Your task to perform on an android device: What is the recent news? Image 0: 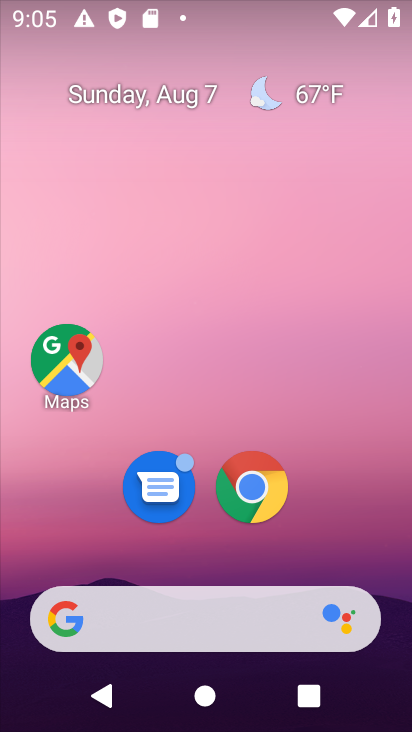
Step 0: drag from (13, 235) to (410, 167)
Your task to perform on an android device: What is the recent news? Image 1: 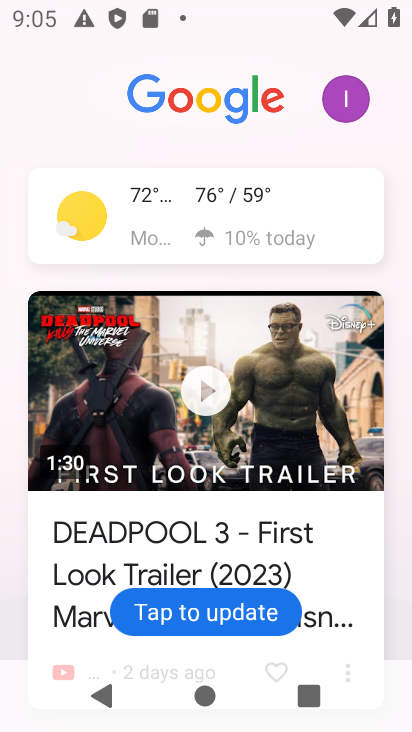
Step 1: drag from (226, 609) to (309, 212)
Your task to perform on an android device: What is the recent news? Image 2: 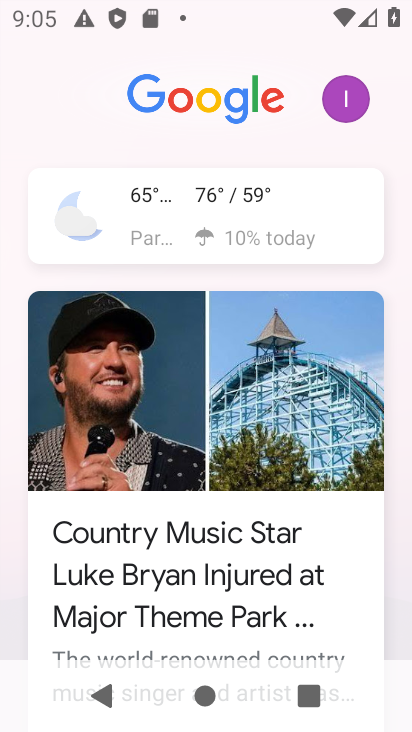
Step 2: click (284, 212)
Your task to perform on an android device: What is the recent news? Image 3: 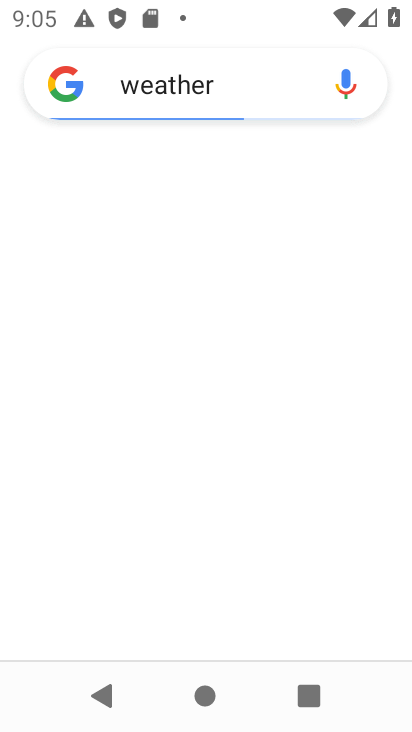
Step 3: task complete